Your task to perform on an android device: Open CNN.com Image 0: 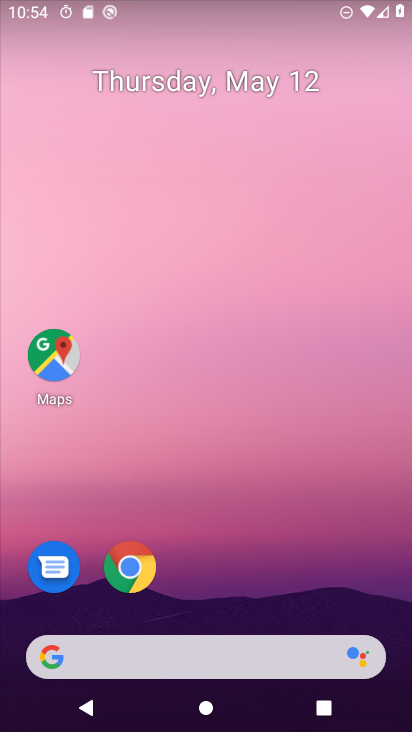
Step 0: drag from (213, 575) to (212, 135)
Your task to perform on an android device: Open CNN.com Image 1: 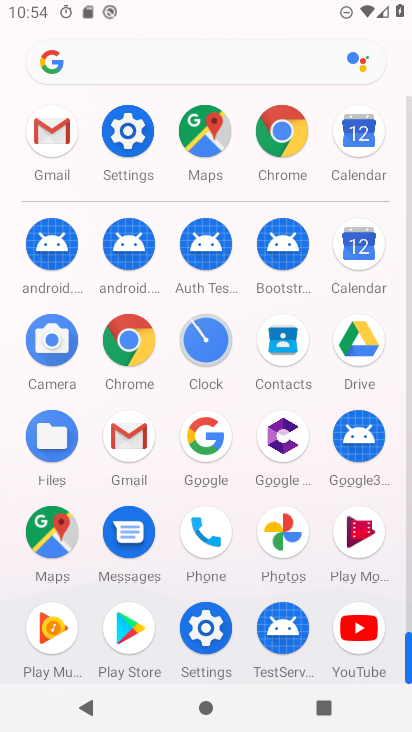
Step 1: click (263, 164)
Your task to perform on an android device: Open CNN.com Image 2: 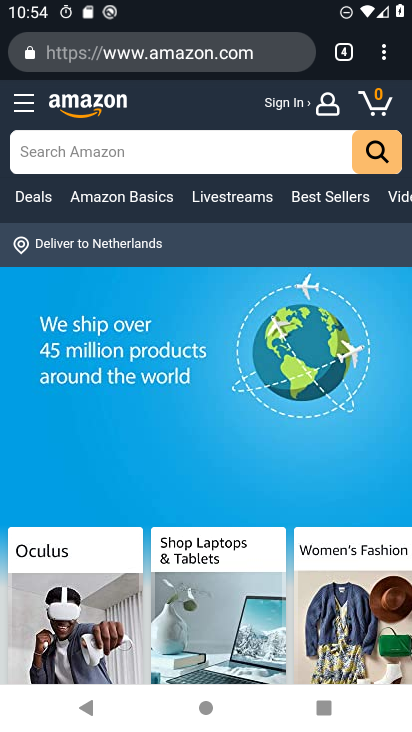
Step 2: click (295, 60)
Your task to perform on an android device: Open CNN.com Image 3: 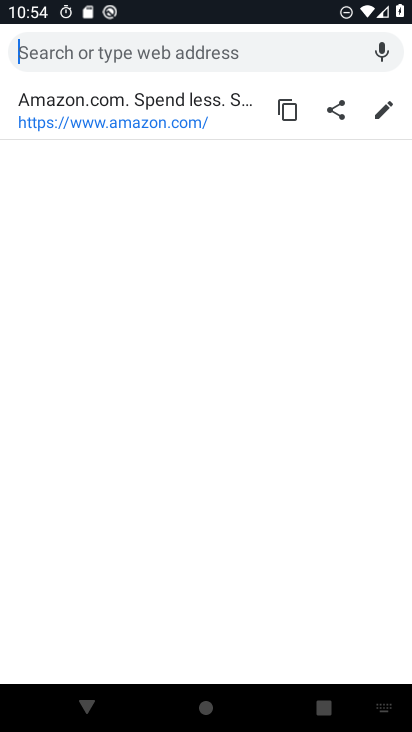
Step 3: type "cnn.com"
Your task to perform on an android device: Open CNN.com Image 4: 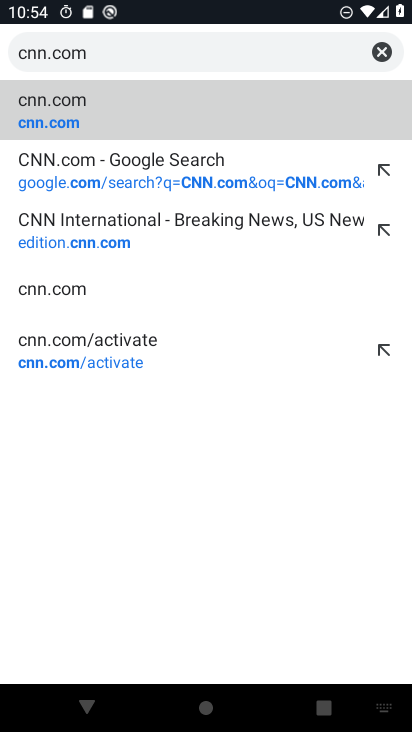
Step 4: click (174, 123)
Your task to perform on an android device: Open CNN.com Image 5: 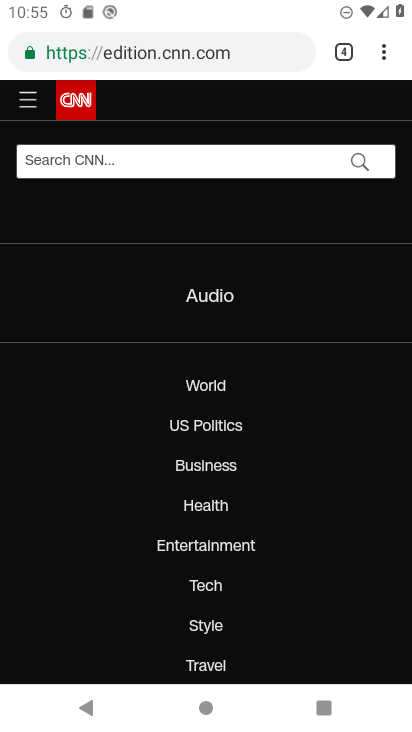
Step 5: task complete